Your task to perform on an android device: move an email to a new category in the gmail app Image 0: 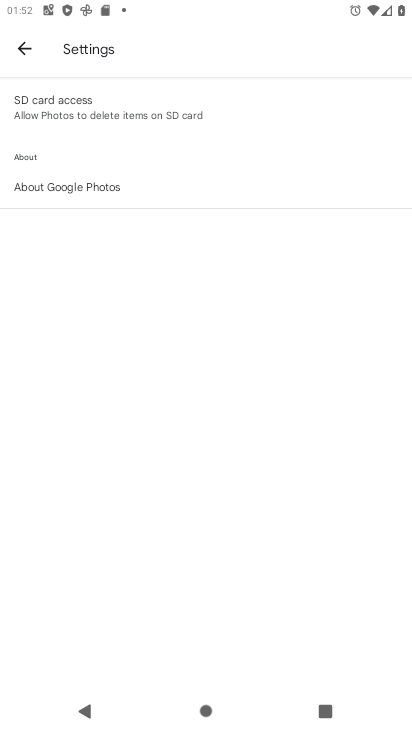
Step 0: press home button
Your task to perform on an android device: move an email to a new category in the gmail app Image 1: 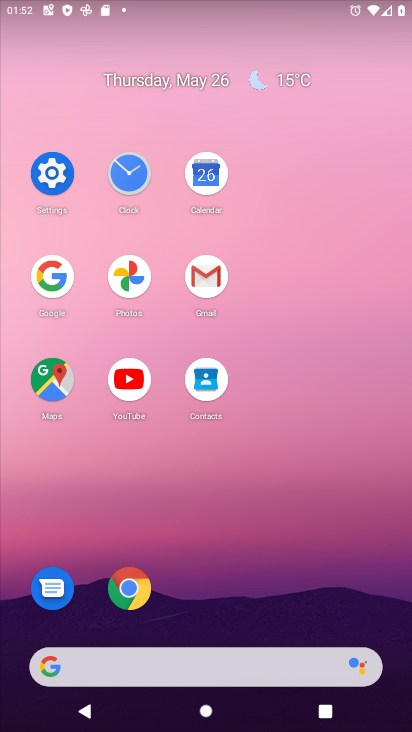
Step 1: click (195, 282)
Your task to perform on an android device: move an email to a new category in the gmail app Image 2: 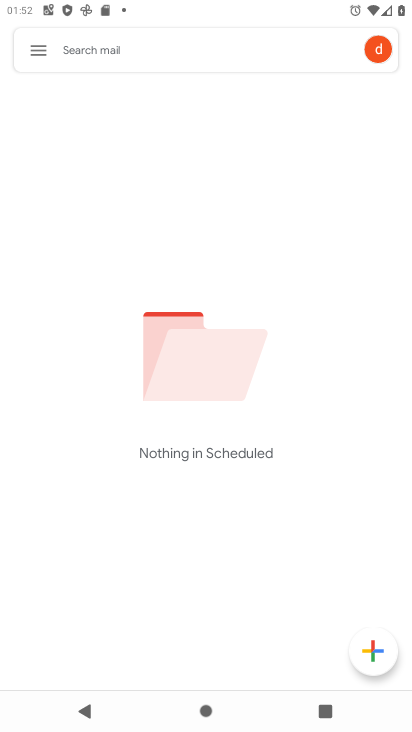
Step 2: click (27, 63)
Your task to perform on an android device: move an email to a new category in the gmail app Image 3: 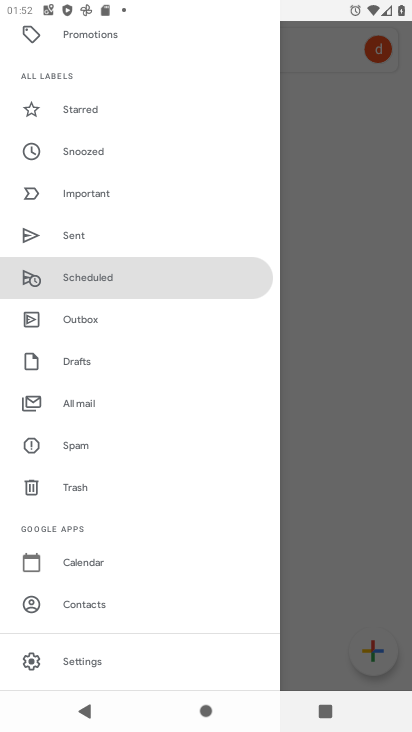
Step 3: click (82, 408)
Your task to perform on an android device: move an email to a new category in the gmail app Image 4: 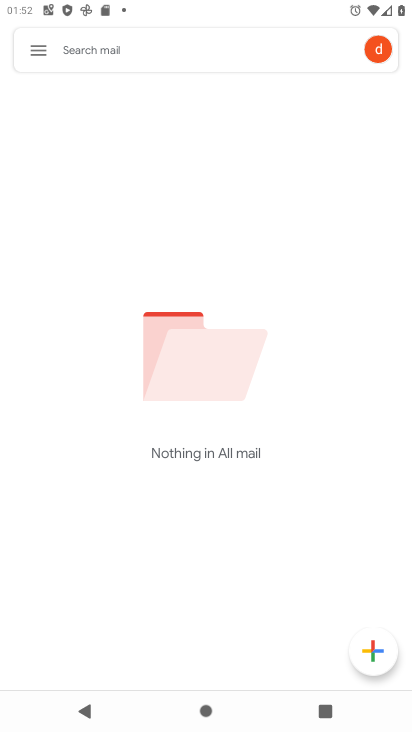
Step 4: task complete